Your task to perform on an android device: Go to accessibility settings Image 0: 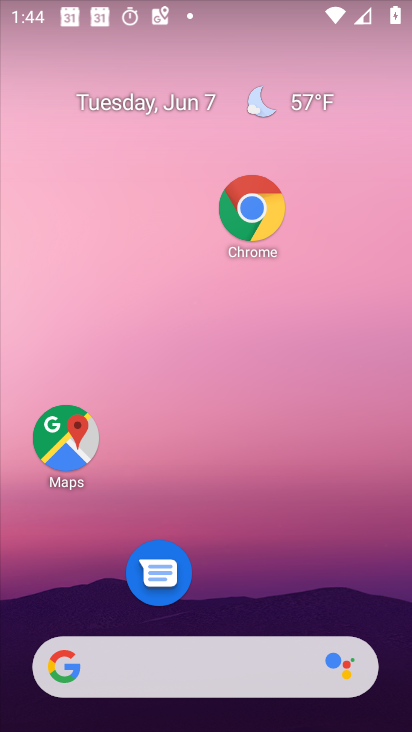
Step 0: drag from (235, 586) to (216, 95)
Your task to perform on an android device: Go to accessibility settings Image 1: 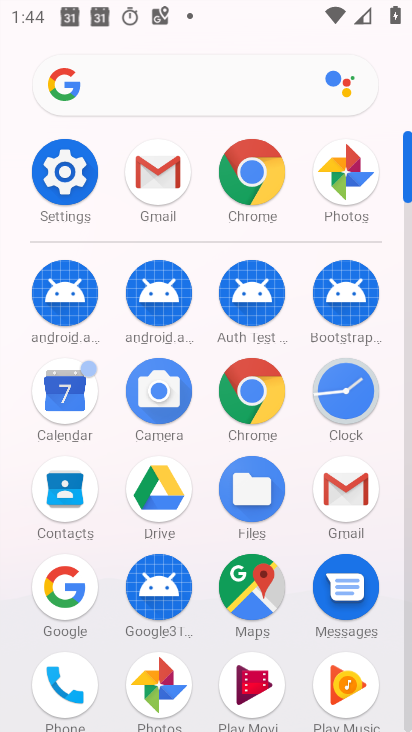
Step 1: click (71, 174)
Your task to perform on an android device: Go to accessibility settings Image 2: 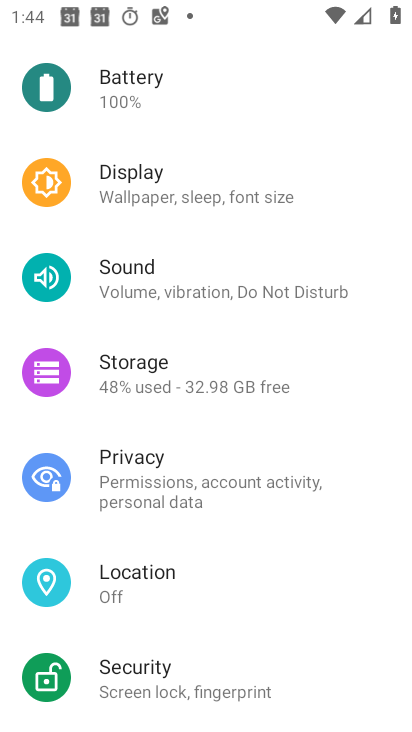
Step 2: drag from (205, 597) to (209, 283)
Your task to perform on an android device: Go to accessibility settings Image 3: 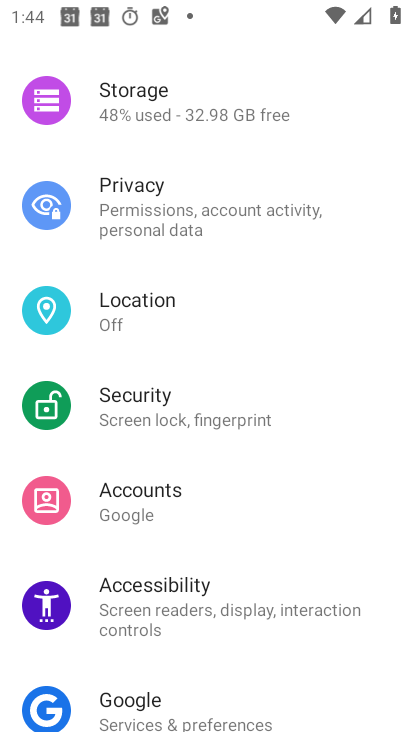
Step 3: drag from (228, 571) to (218, 417)
Your task to perform on an android device: Go to accessibility settings Image 4: 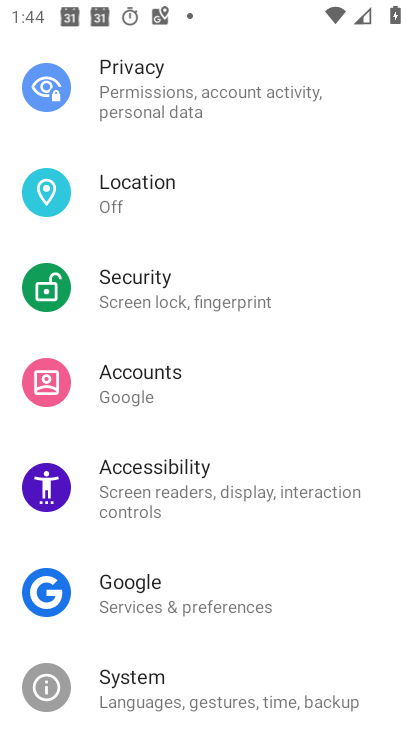
Step 4: click (230, 485)
Your task to perform on an android device: Go to accessibility settings Image 5: 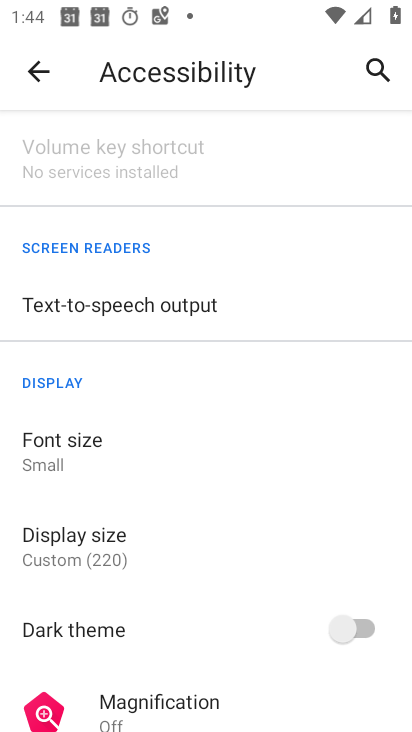
Step 5: task complete